Your task to perform on an android device: Search for a new blush on Sephora Image 0: 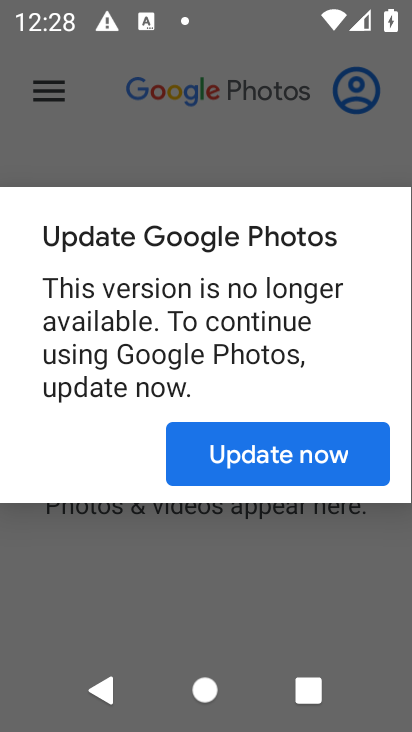
Step 0: click (265, 457)
Your task to perform on an android device: Search for a new blush on Sephora Image 1: 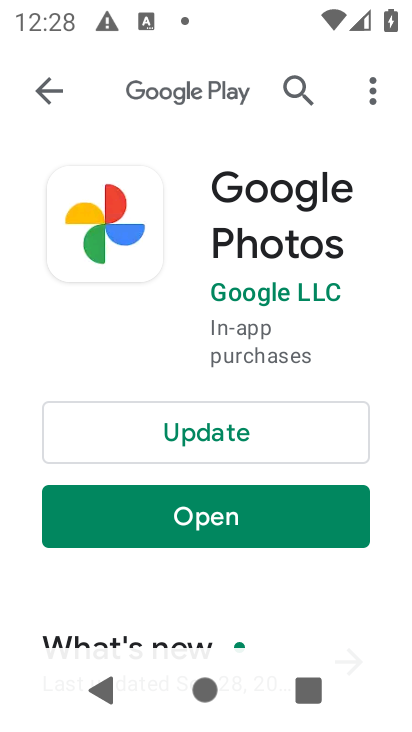
Step 1: click (210, 514)
Your task to perform on an android device: Search for a new blush on Sephora Image 2: 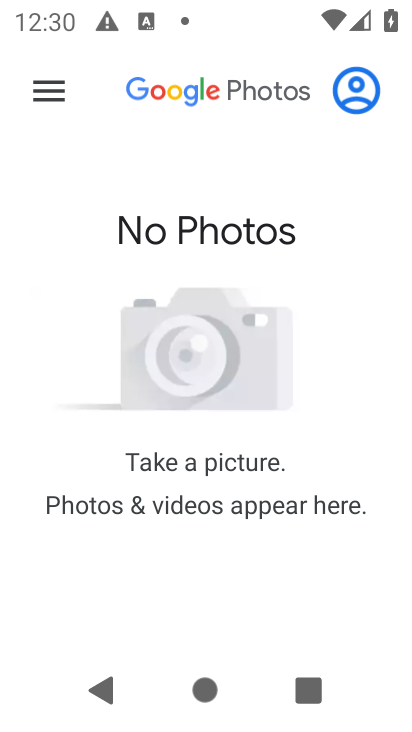
Step 2: press home button
Your task to perform on an android device: Search for a new blush on Sephora Image 3: 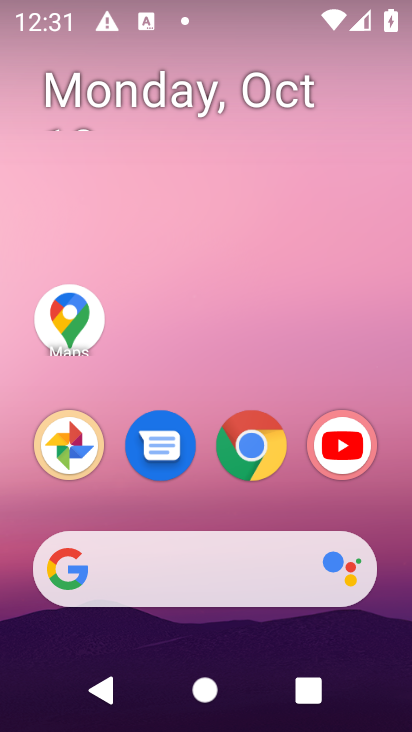
Step 3: click (60, 567)
Your task to perform on an android device: Search for a new blush on Sephora Image 4: 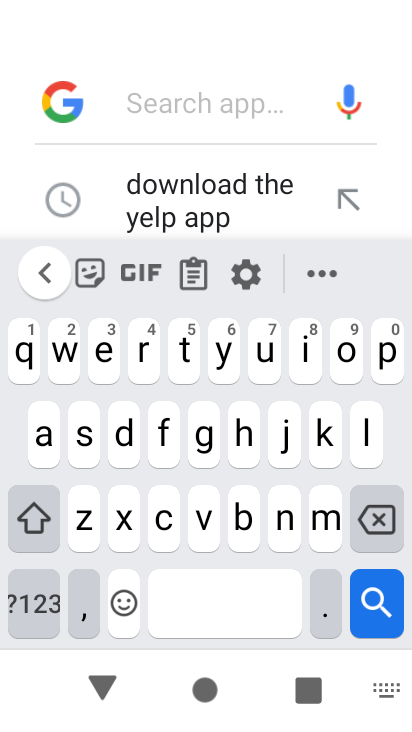
Step 4: type "new blush on sephora"
Your task to perform on an android device: Search for a new blush on Sephora Image 5: 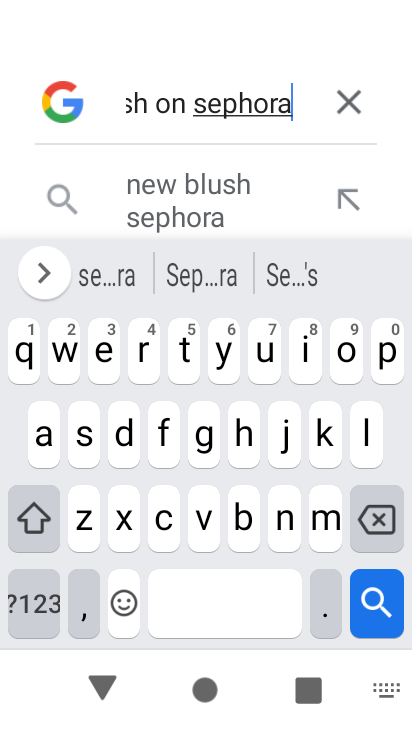
Step 5: click (228, 190)
Your task to perform on an android device: Search for a new blush on Sephora Image 6: 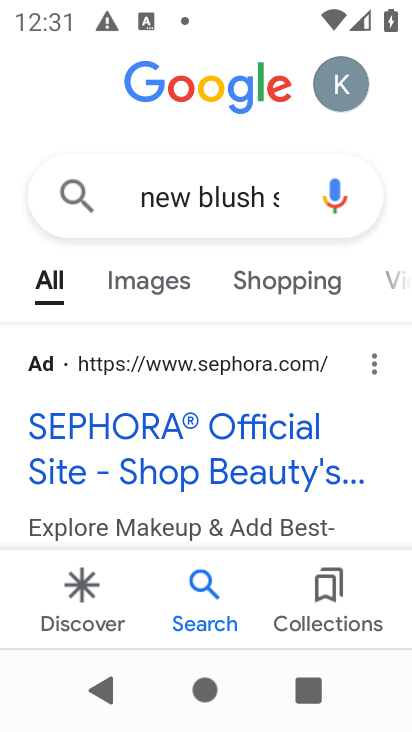
Step 6: click (157, 425)
Your task to perform on an android device: Search for a new blush on Sephora Image 7: 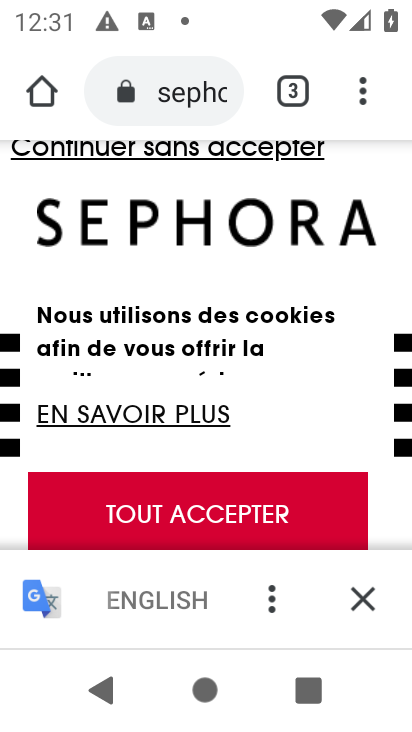
Step 7: task complete